Your task to perform on an android device: set the stopwatch Image 0: 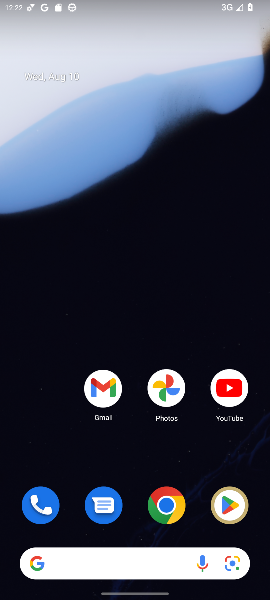
Step 0: press home button
Your task to perform on an android device: set the stopwatch Image 1: 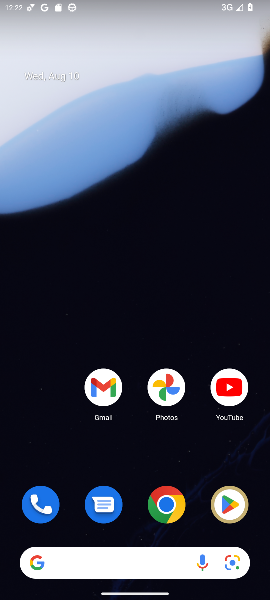
Step 1: drag from (135, 443) to (104, 151)
Your task to perform on an android device: set the stopwatch Image 2: 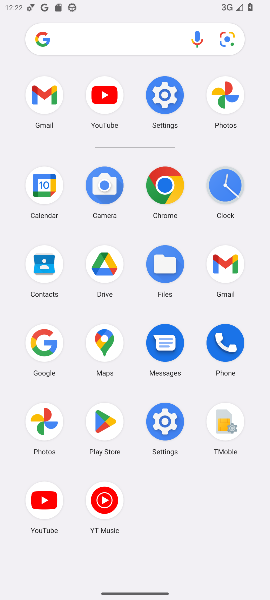
Step 2: click (232, 190)
Your task to perform on an android device: set the stopwatch Image 3: 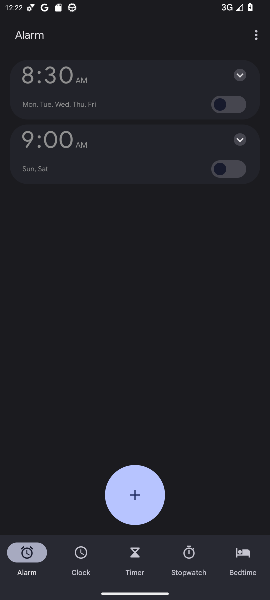
Step 3: click (193, 559)
Your task to perform on an android device: set the stopwatch Image 4: 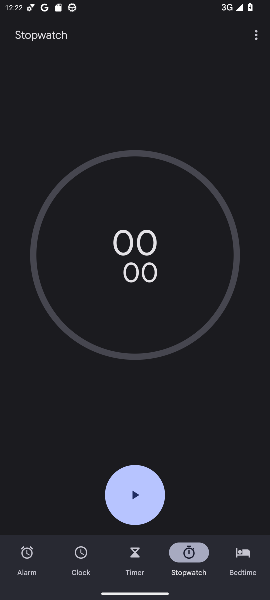
Step 4: click (134, 494)
Your task to perform on an android device: set the stopwatch Image 5: 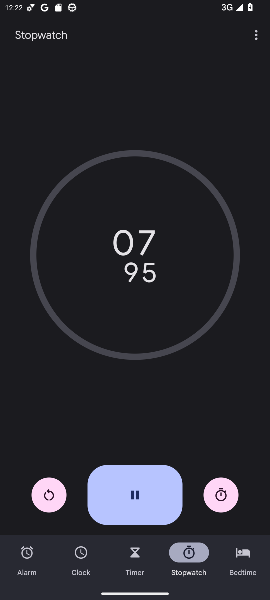
Step 5: task complete